Your task to perform on an android device: toggle notification dots Image 0: 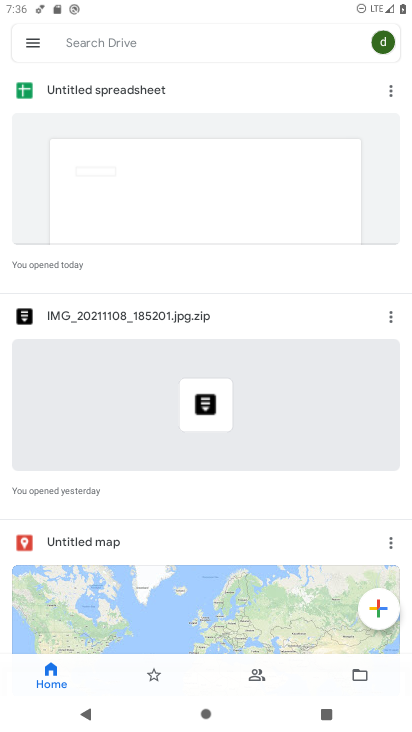
Step 0: press home button
Your task to perform on an android device: toggle notification dots Image 1: 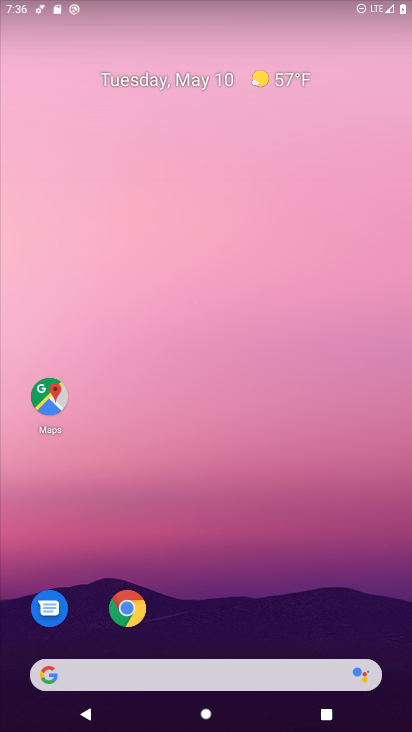
Step 1: drag from (361, 610) to (331, 96)
Your task to perform on an android device: toggle notification dots Image 2: 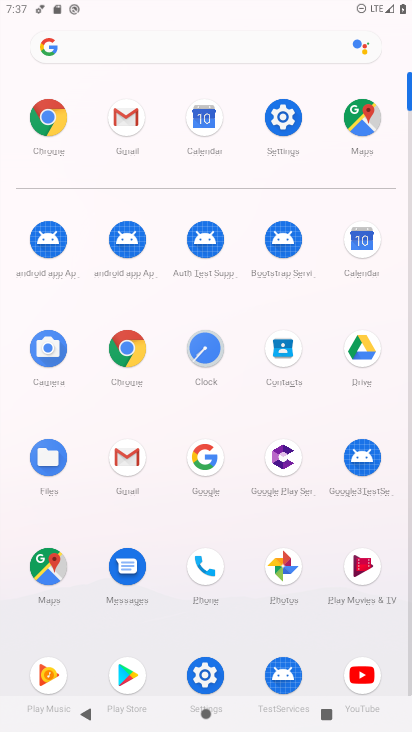
Step 2: click (207, 673)
Your task to perform on an android device: toggle notification dots Image 3: 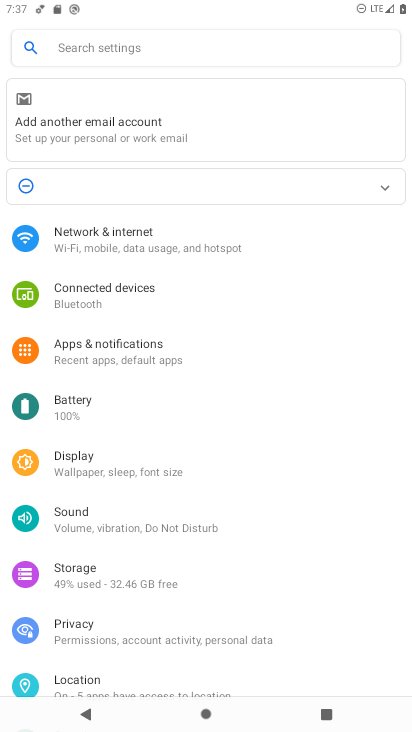
Step 3: click (164, 362)
Your task to perform on an android device: toggle notification dots Image 4: 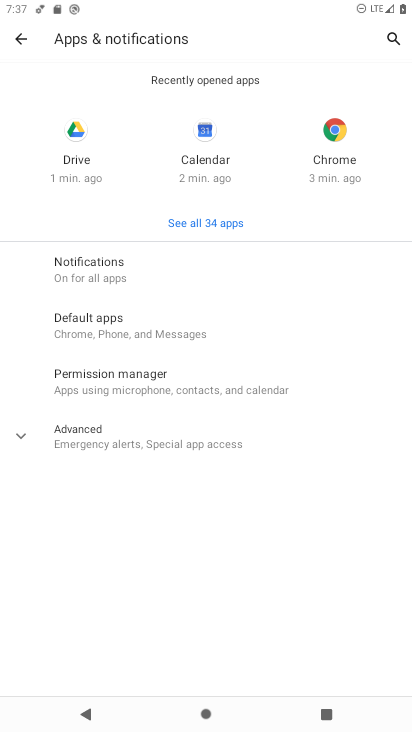
Step 4: click (163, 295)
Your task to perform on an android device: toggle notification dots Image 5: 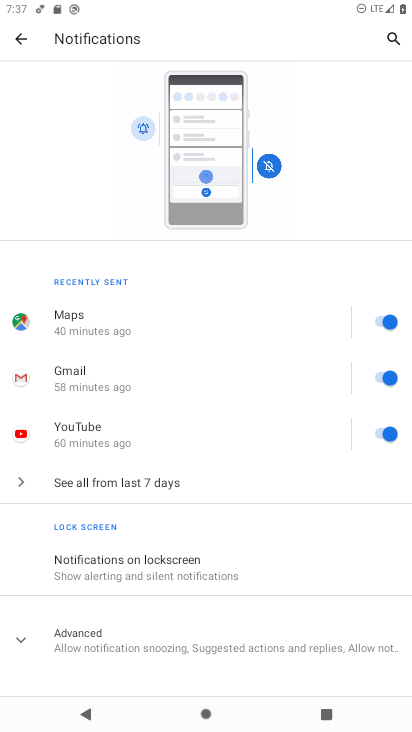
Step 5: click (107, 637)
Your task to perform on an android device: toggle notification dots Image 6: 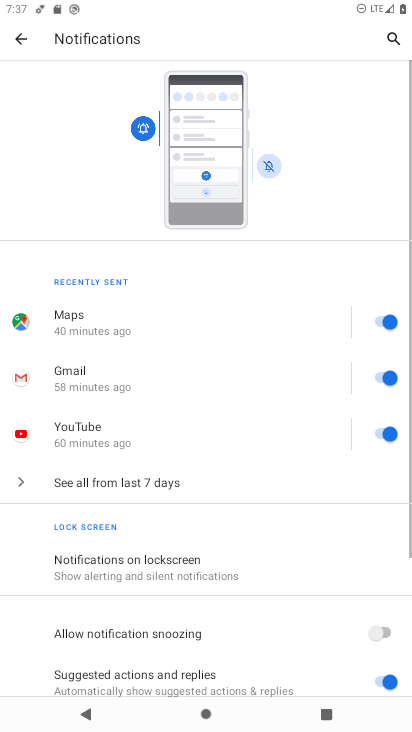
Step 6: drag from (107, 636) to (163, 205)
Your task to perform on an android device: toggle notification dots Image 7: 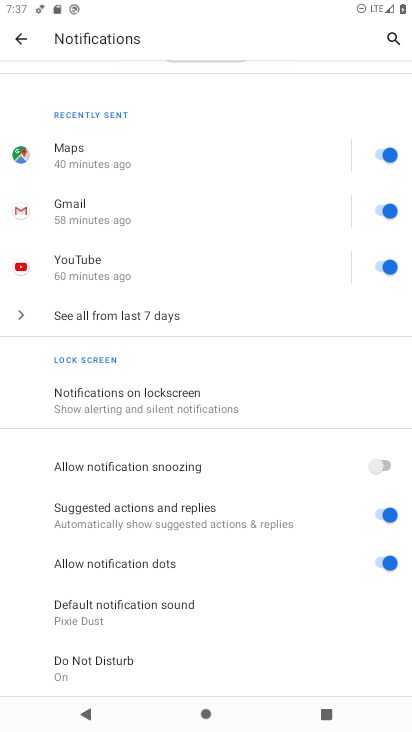
Step 7: click (240, 565)
Your task to perform on an android device: toggle notification dots Image 8: 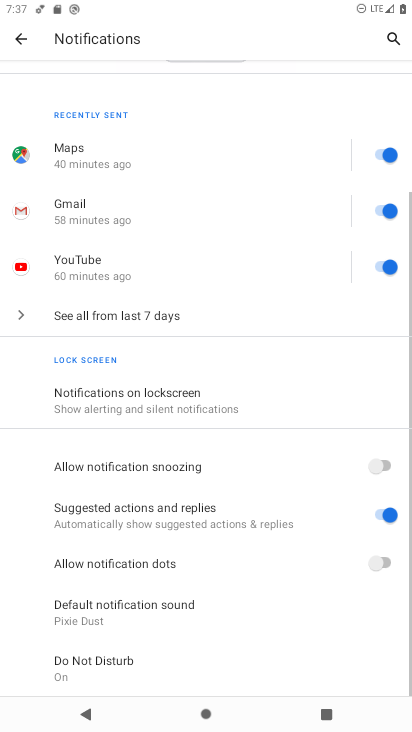
Step 8: task complete